Your task to perform on an android device: Do I have any events today? Image 0: 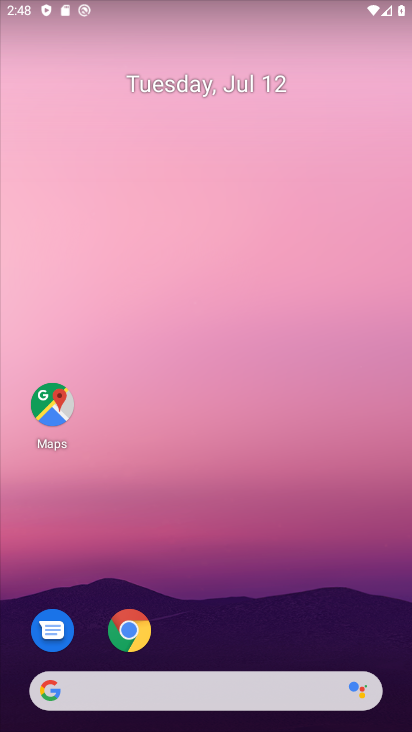
Step 0: drag from (188, 715) to (313, 76)
Your task to perform on an android device: Do I have any events today? Image 1: 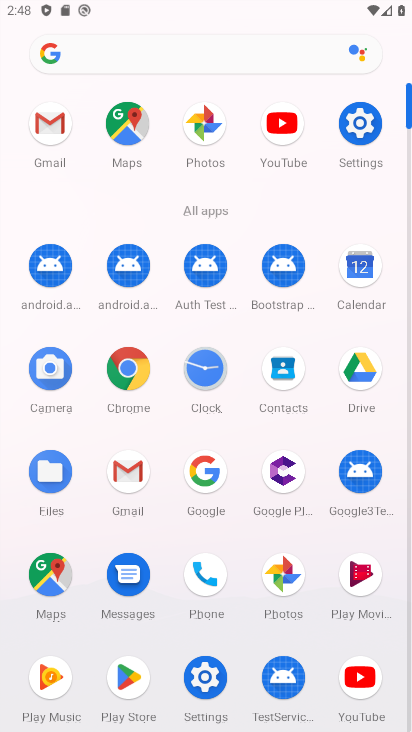
Step 1: click (364, 673)
Your task to perform on an android device: Do I have any events today? Image 2: 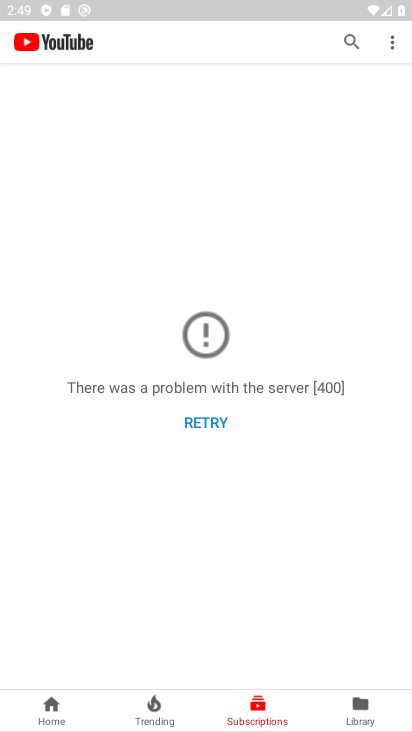
Step 2: press home button
Your task to perform on an android device: Do I have any events today? Image 3: 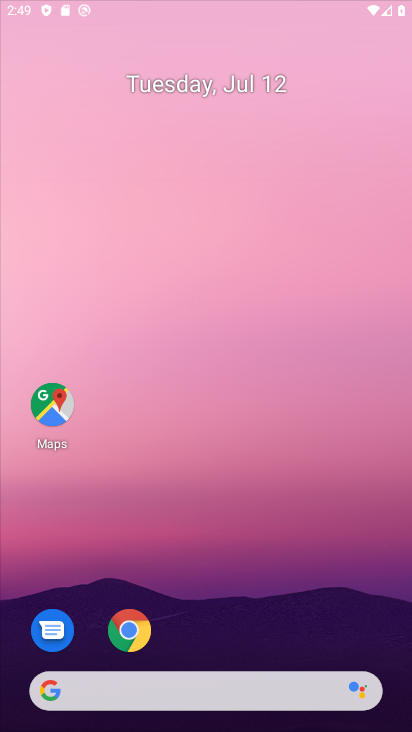
Step 3: drag from (252, 572) to (225, 171)
Your task to perform on an android device: Do I have any events today? Image 4: 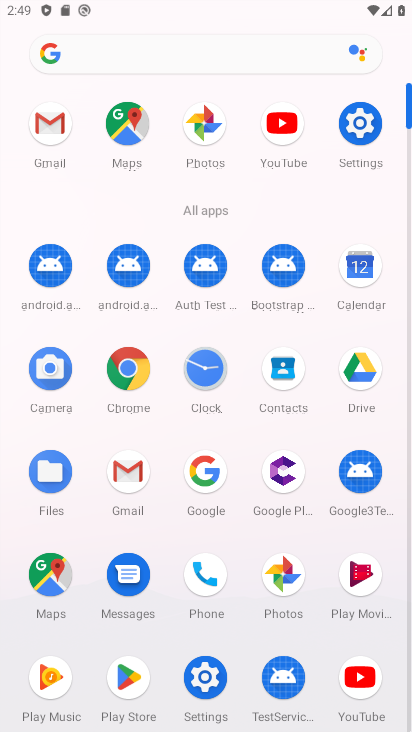
Step 4: click (343, 270)
Your task to perform on an android device: Do I have any events today? Image 5: 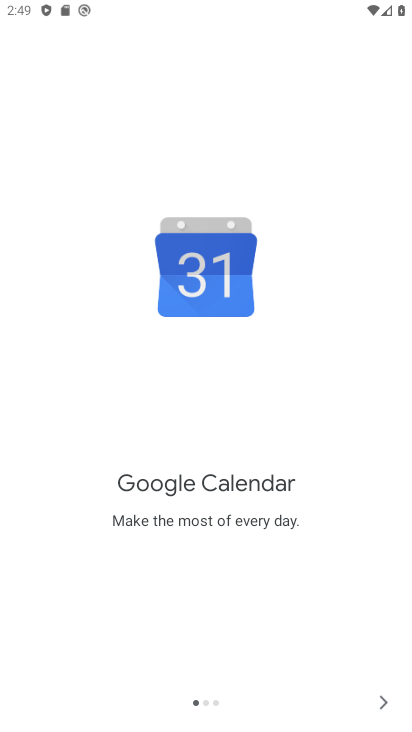
Step 5: click (381, 695)
Your task to perform on an android device: Do I have any events today? Image 6: 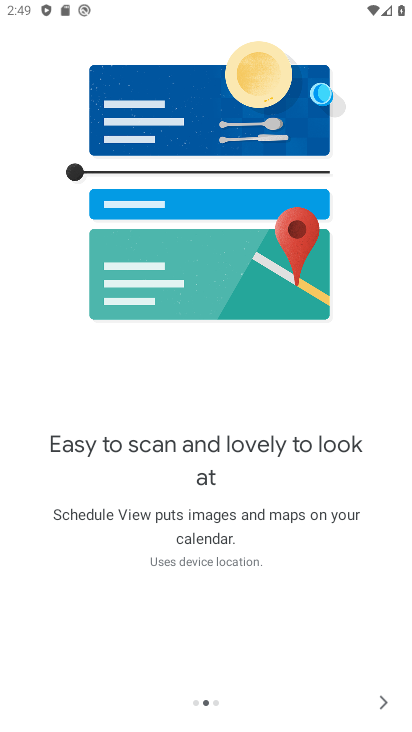
Step 6: click (383, 696)
Your task to perform on an android device: Do I have any events today? Image 7: 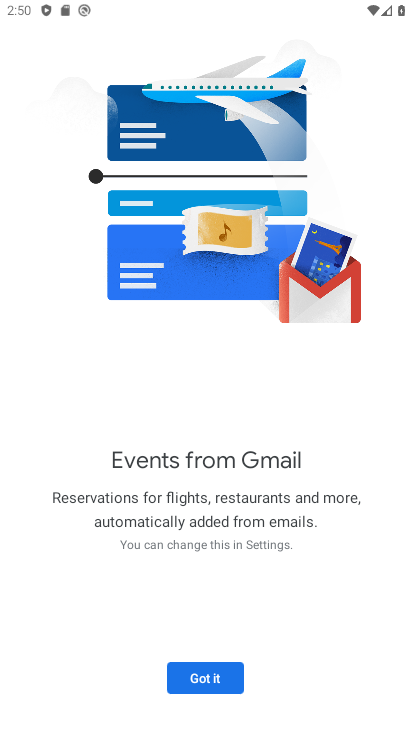
Step 7: click (226, 683)
Your task to perform on an android device: Do I have any events today? Image 8: 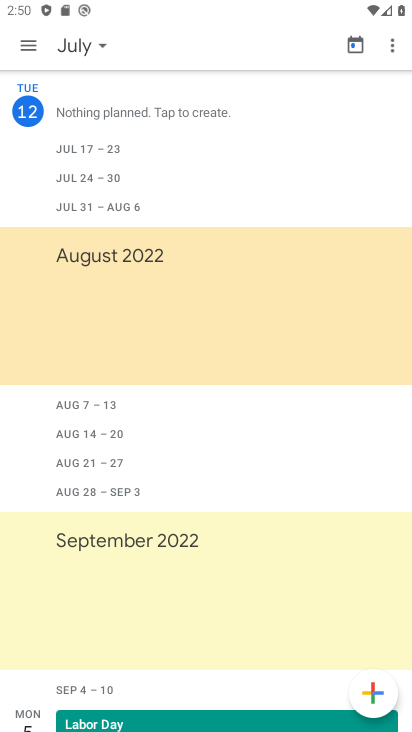
Step 8: click (107, 45)
Your task to perform on an android device: Do I have any events today? Image 9: 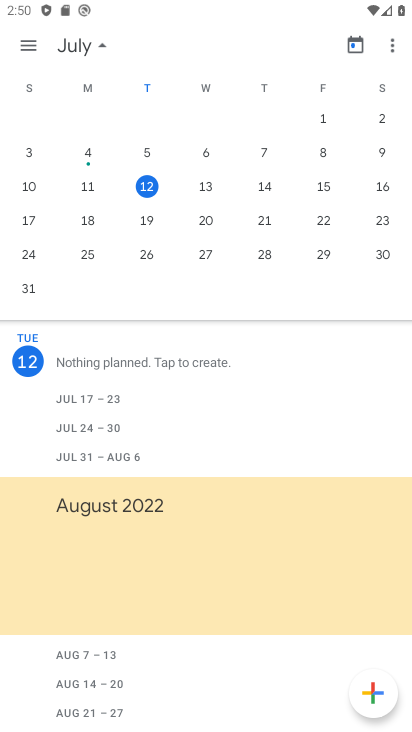
Step 9: click (139, 186)
Your task to perform on an android device: Do I have any events today? Image 10: 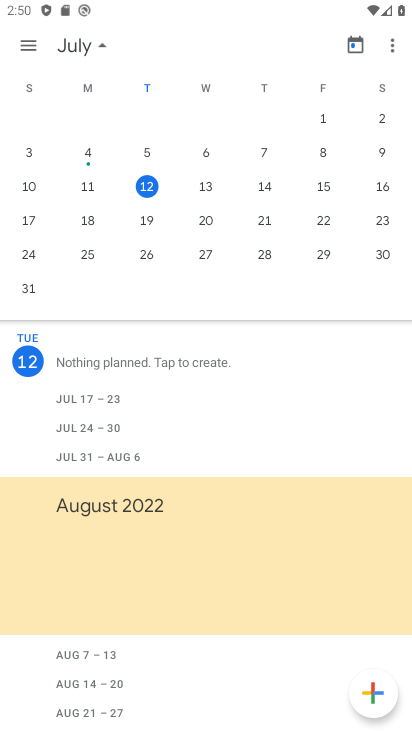
Step 10: task complete